Your task to perform on an android device: turn vacation reply on in the gmail app Image 0: 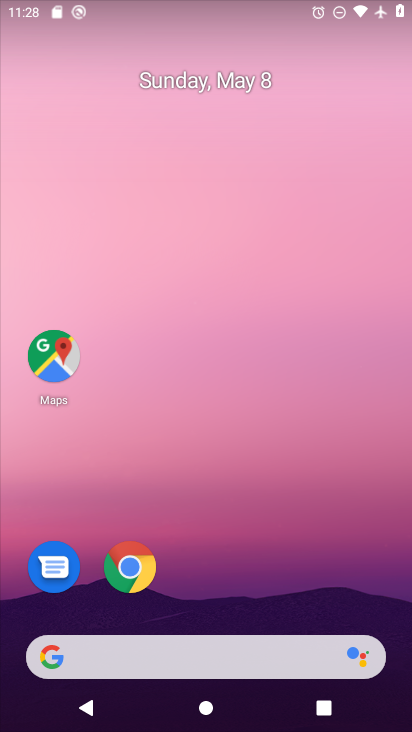
Step 0: drag from (264, 595) to (262, 106)
Your task to perform on an android device: turn vacation reply on in the gmail app Image 1: 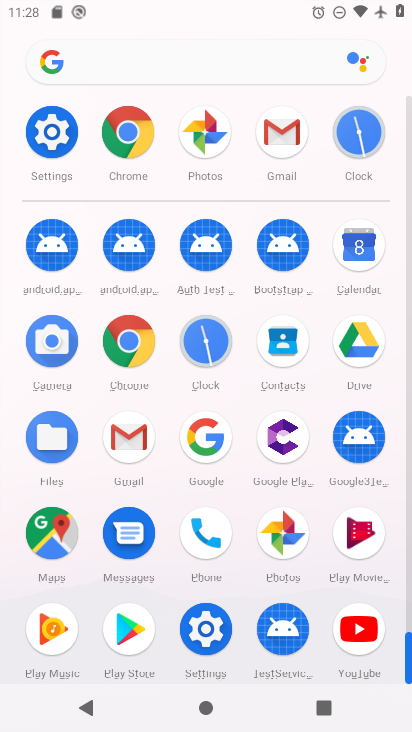
Step 1: click (269, 154)
Your task to perform on an android device: turn vacation reply on in the gmail app Image 2: 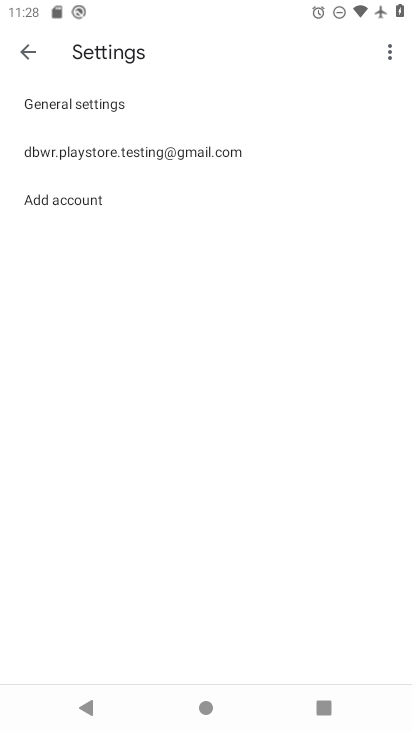
Step 2: click (205, 157)
Your task to perform on an android device: turn vacation reply on in the gmail app Image 3: 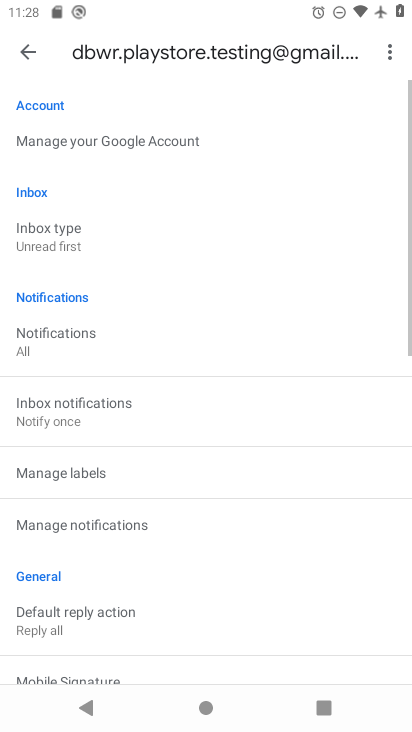
Step 3: drag from (173, 617) to (218, 152)
Your task to perform on an android device: turn vacation reply on in the gmail app Image 4: 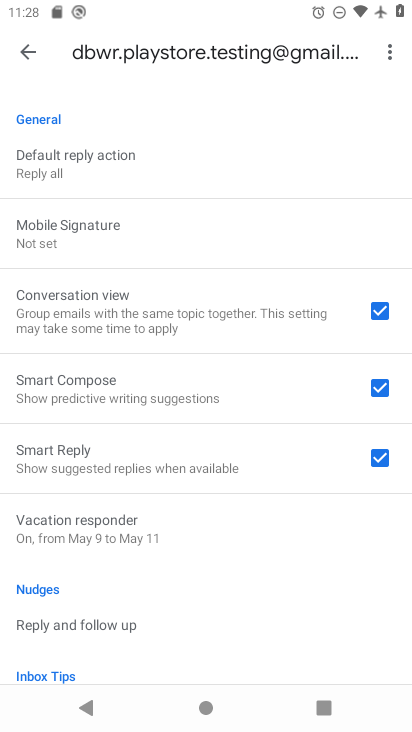
Step 4: click (137, 549)
Your task to perform on an android device: turn vacation reply on in the gmail app Image 5: 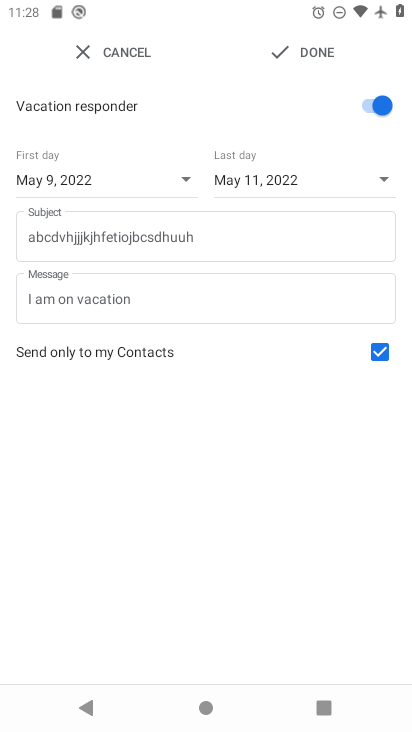
Step 5: task complete